Your task to perform on an android device: open app "TextNow: Call + Text Unlimited" (install if not already installed) and go to login screen Image 0: 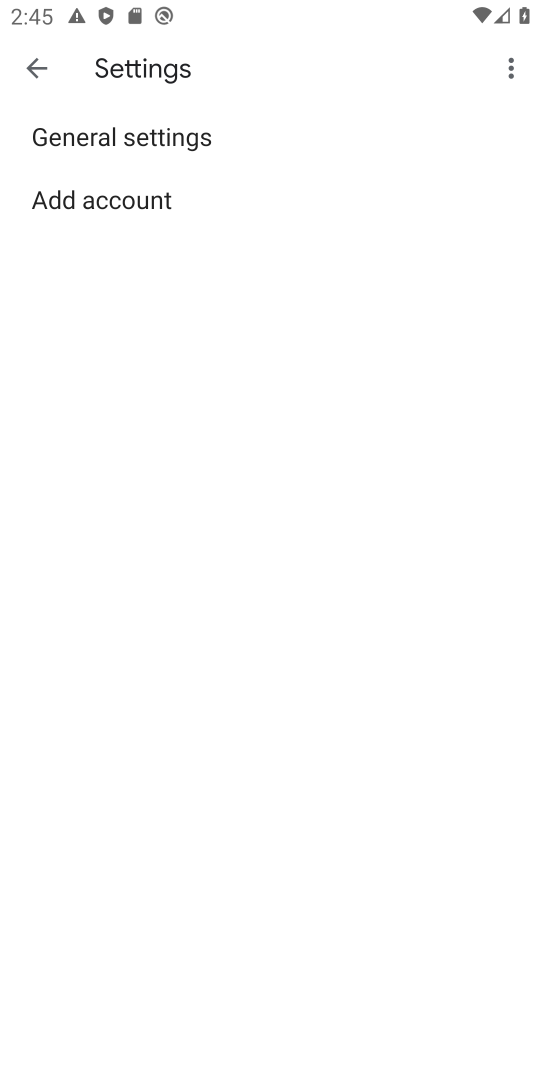
Step 0: press home button
Your task to perform on an android device: open app "TextNow: Call + Text Unlimited" (install if not already installed) and go to login screen Image 1: 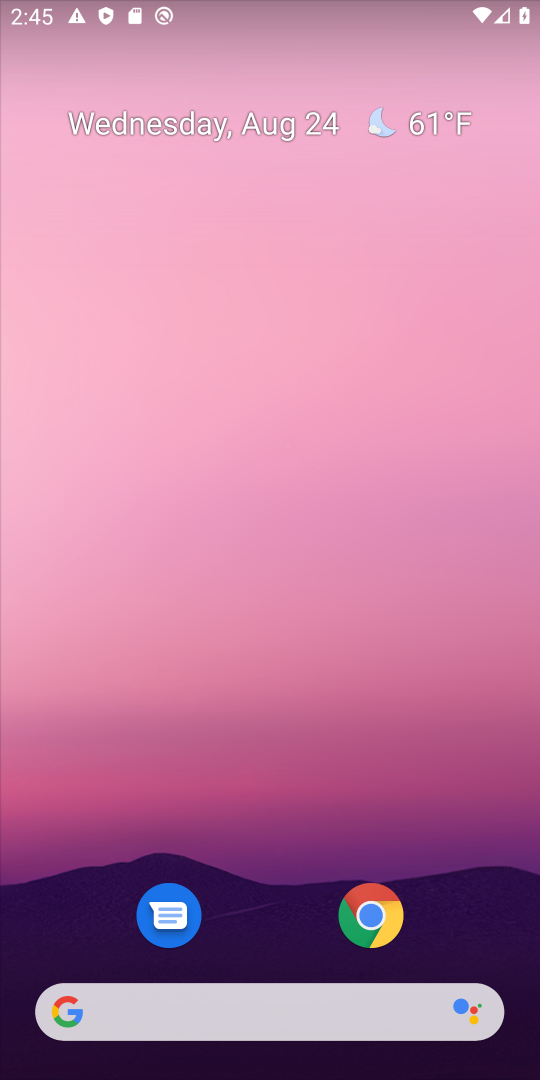
Step 1: drag from (277, 831) to (273, 285)
Your task to perform on an android device: open app "TextNow: Call + Text Unlimited" (install if not already installed) and go to login screen Image 2: 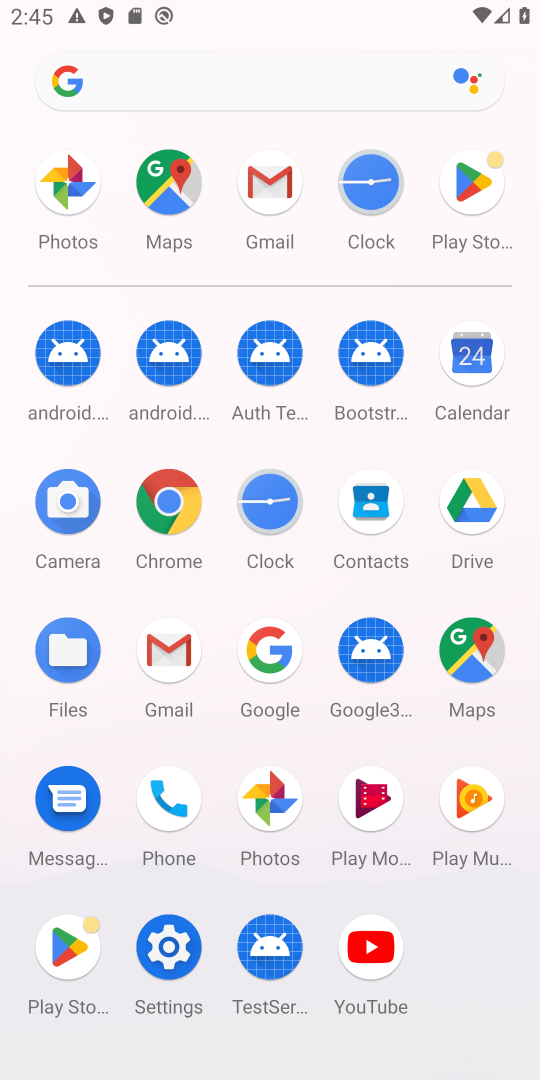
Step 2: click (475, 176)
Your task to perform on an android device: open app "TextNow: Call + Text Unlimited" (install if not already installed) and go to login screen Image 3: 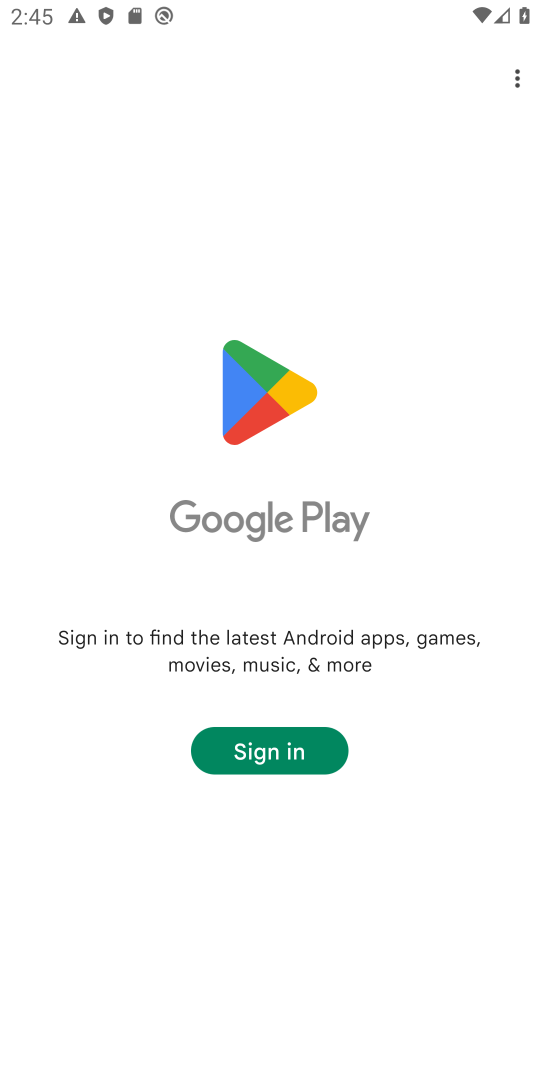
Step 3: task complete